Your task to perform on an android device: Go to network settings Image 0: 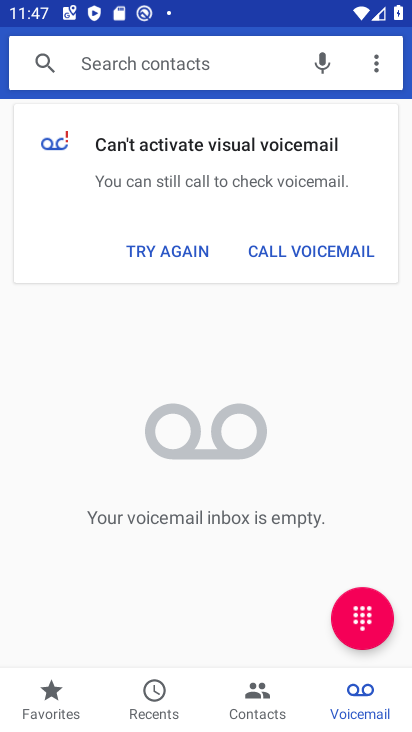
Step 0: press home button
Your task to perform on an android device: Go to network settings Image 1: 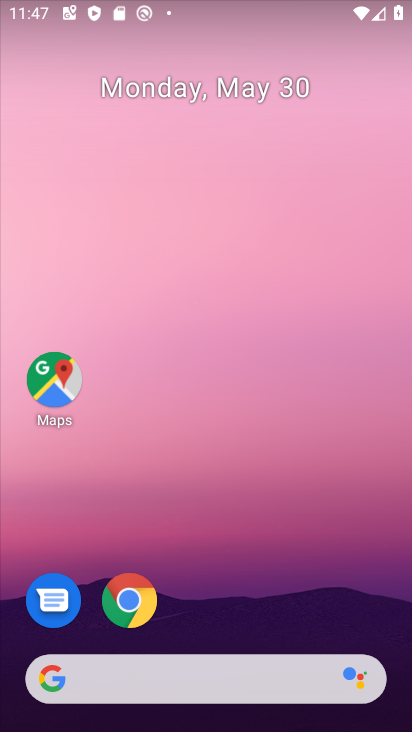
Step 1: drag from (238, 721) to (237, 75)
Your task to perform on an android device: Go to network settings Image 2: 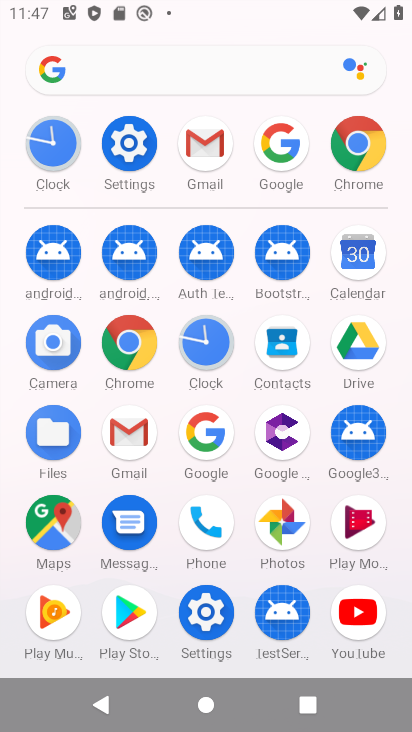
Step 2: click (119, 144)
Your task to perform on an android device: Go to network settings Image 3: 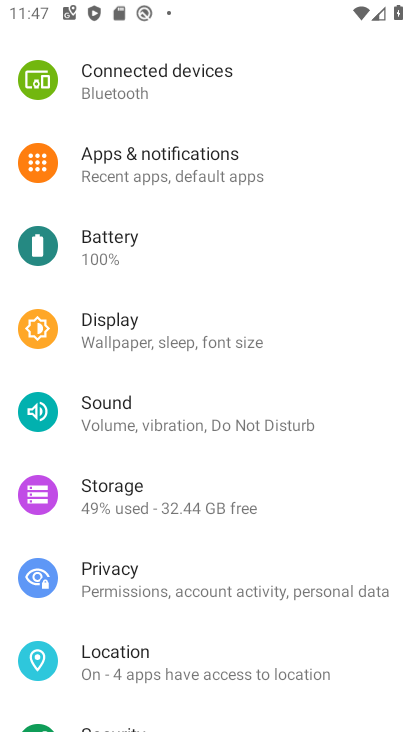
Step 3: drag from (211, 162) to (217, 543)
Your task to perform on an android device: Go to network settings Image 4: 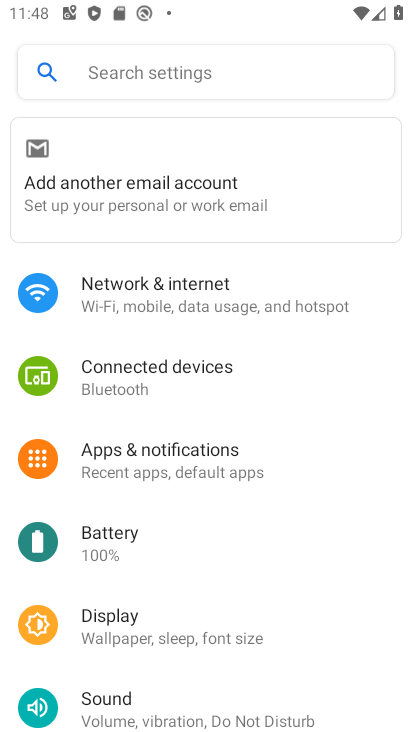
Step 4: click (172, 303)
Your task to perform on an android device: Go to network settings Image 5: 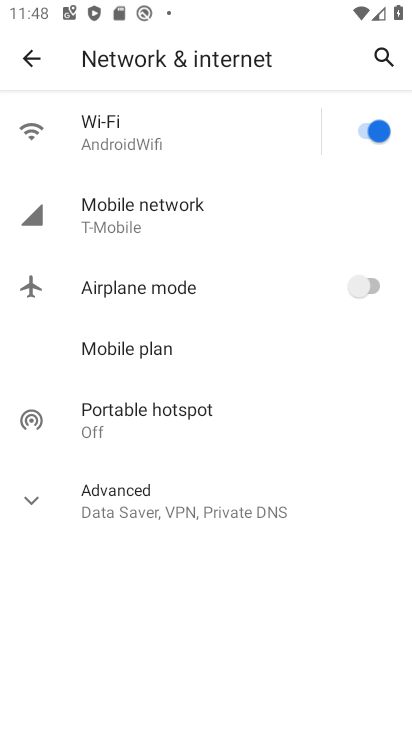
Step 5: click (133, 213)
Your task to perform on an android device: Go to network settings Image 6: 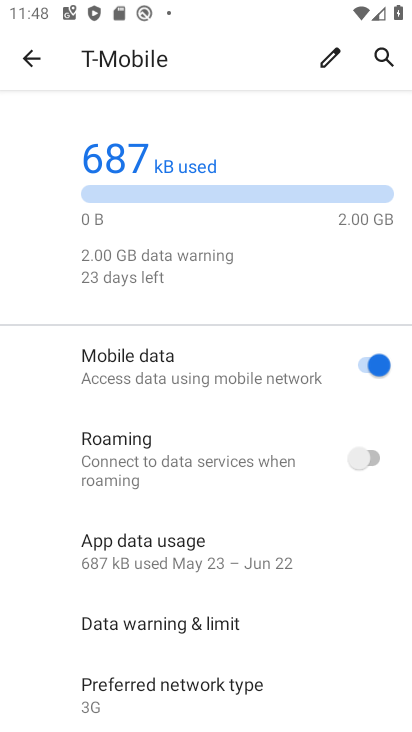
Step 6: task complete